Your task to perform on an android device: See recent photos Image 0: 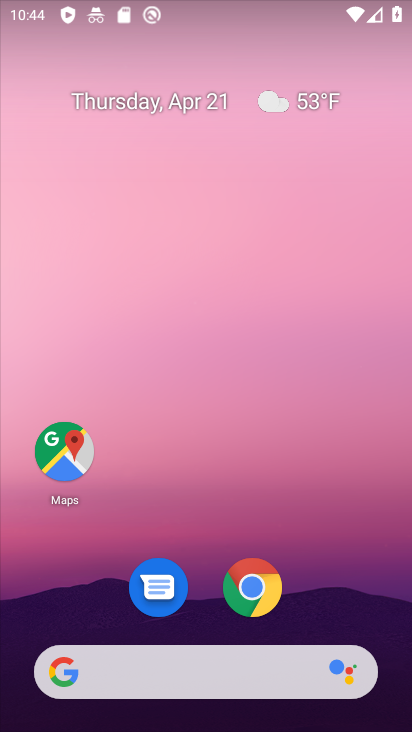
Step 0: drag from (171, 697) to (142, 402)
Your task to perform on an android device: See recent photos Image 1: 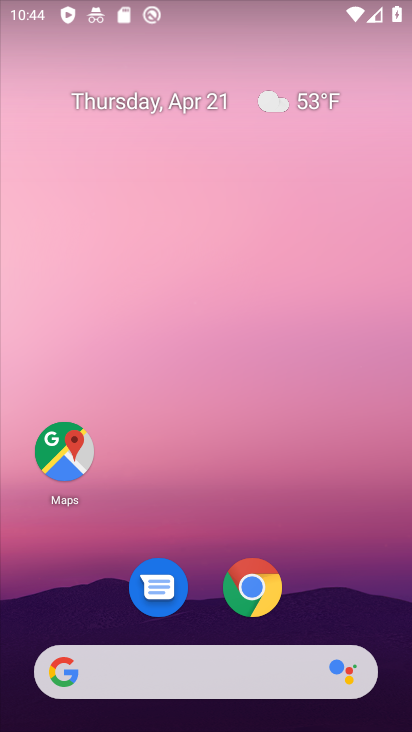
Step 1: drag from (208, 700) to (174, 190)
Your task to perform on an android device: See recent photos Image 2: 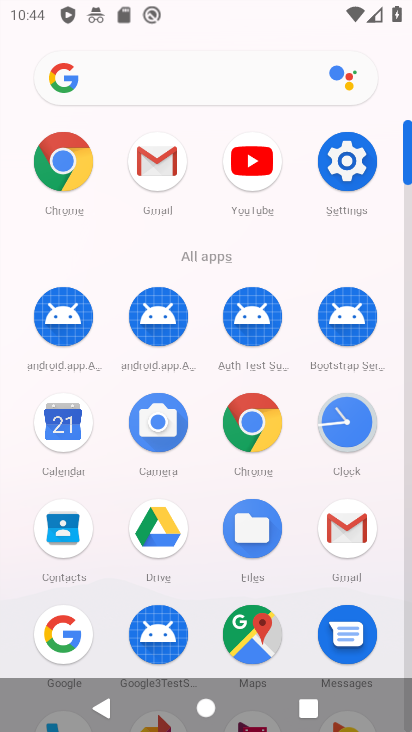
Step 2: drag from (251, 537) to (235, 296)
Your task to perform on an android device: See recent photos Image 3: 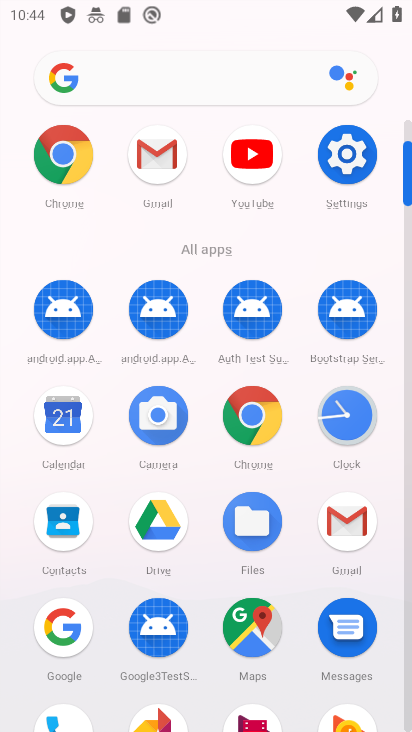
Step 3: drag from (196, 628) to (175, 256)
Your task to perform on an android device: See recent photos Image 4: 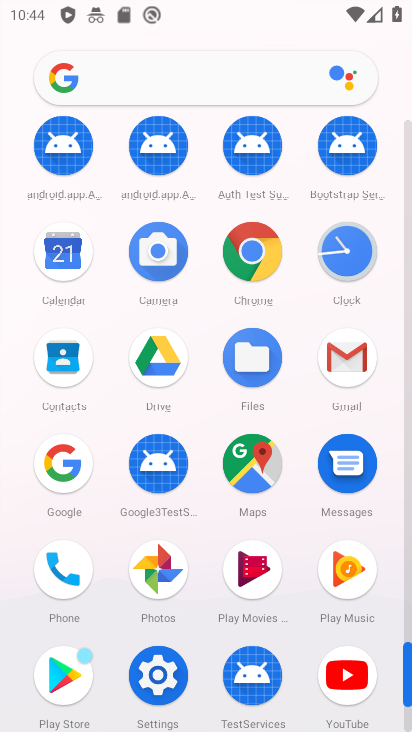
Step 4: click (166, 565)
Your task to perform on an android device: See recent photos Image 5: 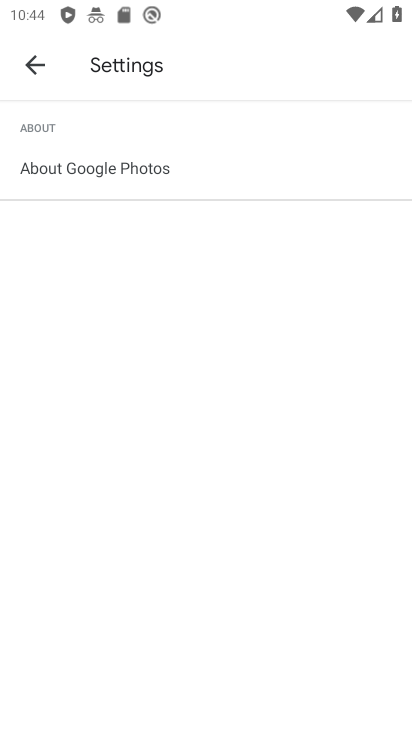
Step 5: click (44, 63)
Your task to perform on an android device: See recent photos Image 6: 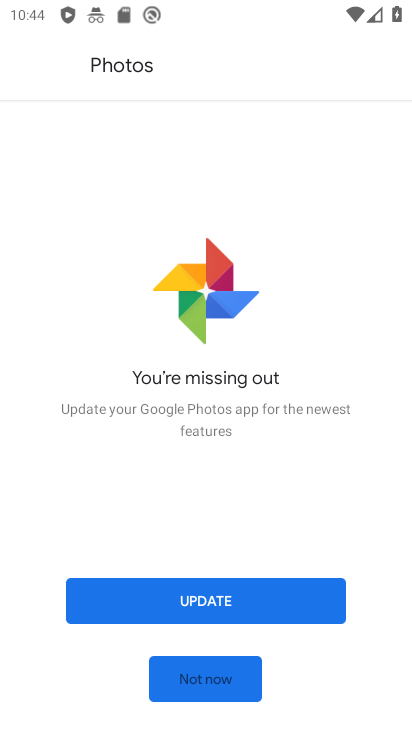
Step 6: click (184, 600)
Your task to perform on an android device: See recent photos Image 7: 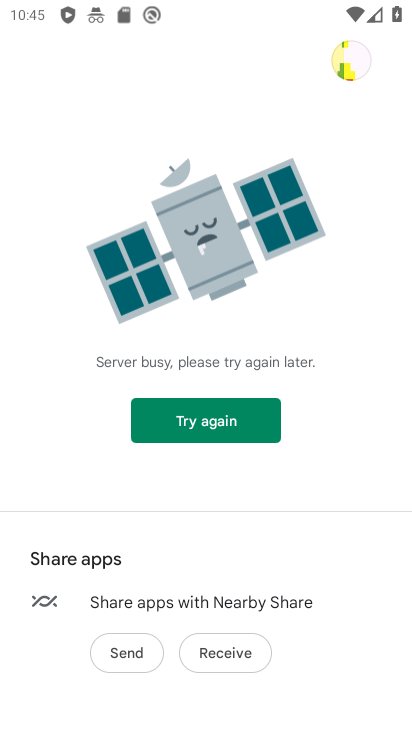
Step 7: task complete